Your task to perform on an android device: turn off sleep mode Image 0: 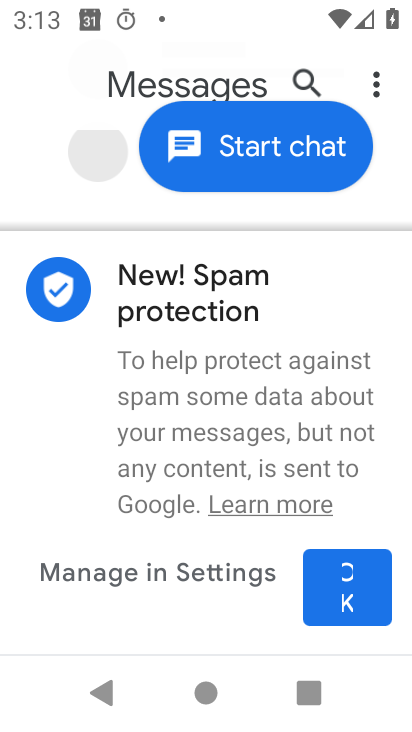
Step 0: press home button
Your task to perform on an android device: turn off sleep mode Image 1: 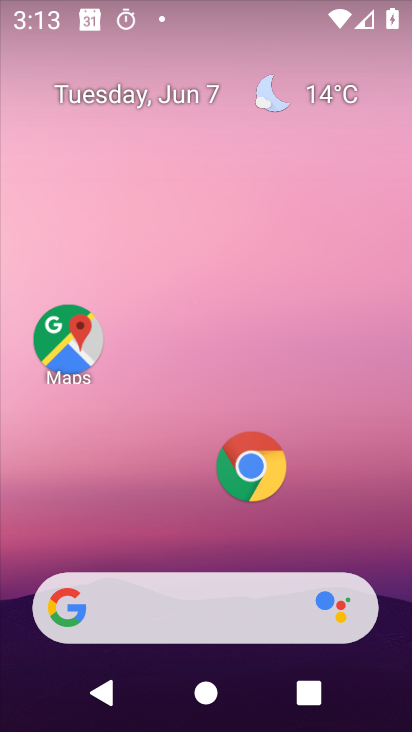
Step 1: drag from (206, 11) to (234, 652)
Your task to perform on an android device: turn off sleep mode Image 2: 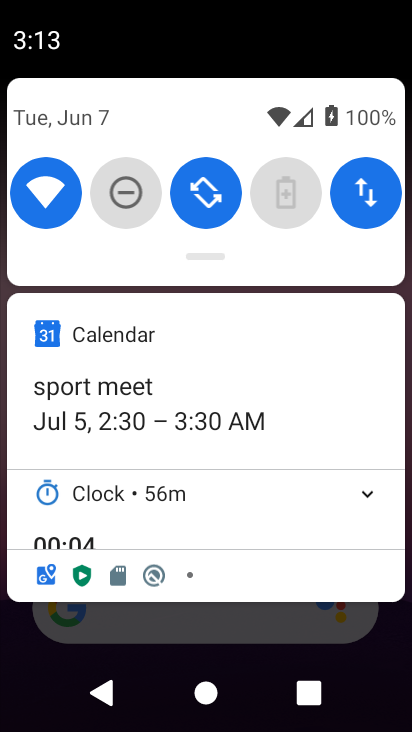
Step 2: drag from (213, 255) to (106, 712)
Your task to perform on an android device: turn off sleep mode Image 3: 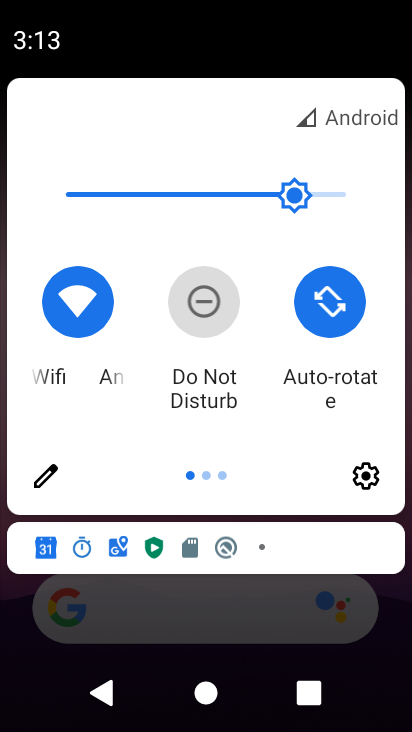
Step 3: click (36, 474)
Your task to perform on an android device: turn off sleep mode Image 4: 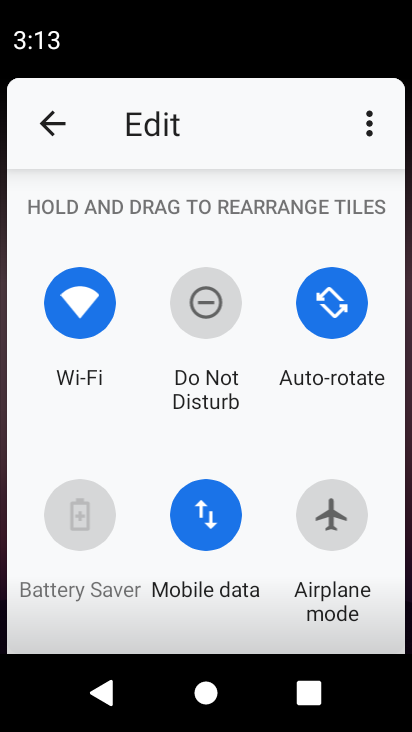
Step 4: task complete